Your task to perform on an android device: change the clock style Image 0: 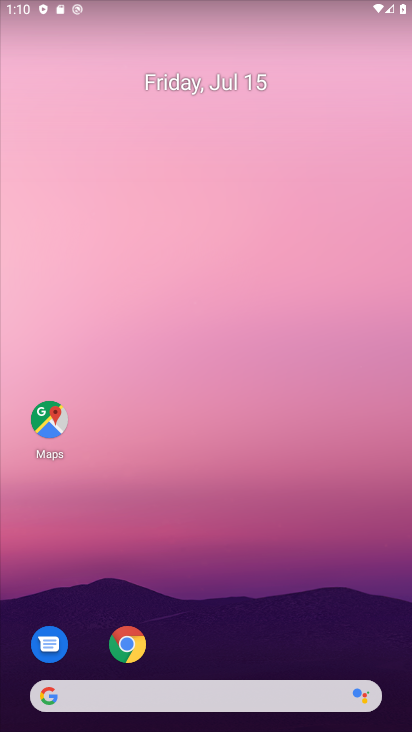
Step 0: drag from (392, 656) to (195, 46)
Your task to perform on an android device: change the clock style Image 1: 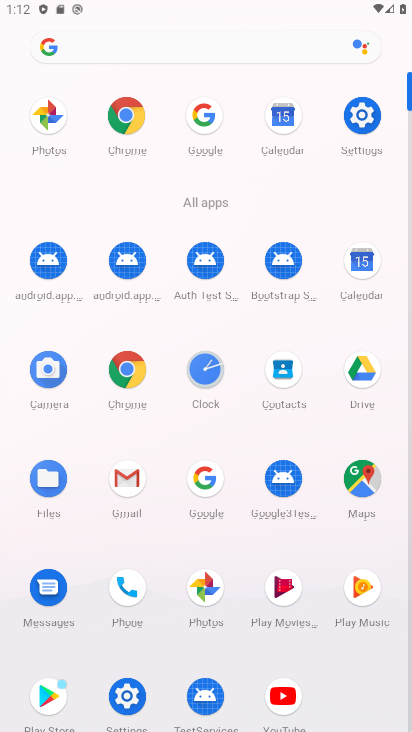
Step 1: click (199, 361)
Your task to perform on an android device: change the clock style Image 2: 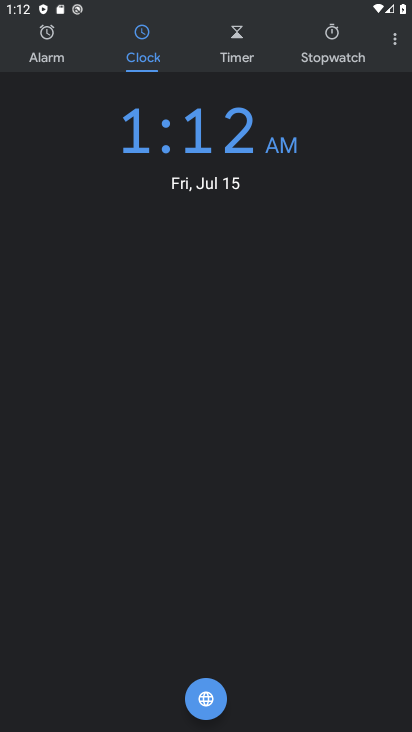
Step 2: click (390, 40)
Your task to perform on an android device: change the clock style Image 3: 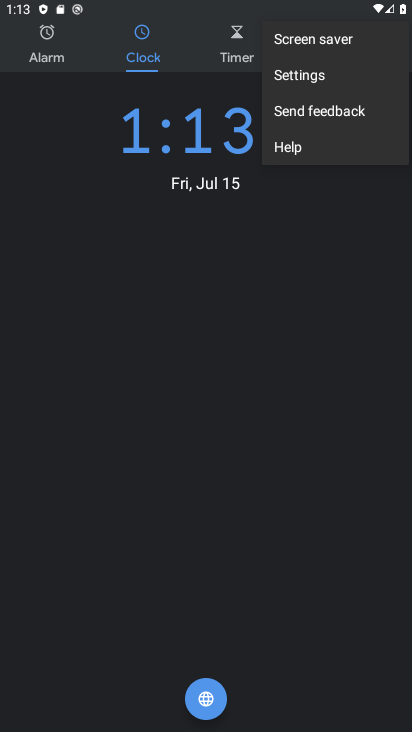
Step 3: click (316, 72)
Your task to perform on an android device: change the clock style Image 4: 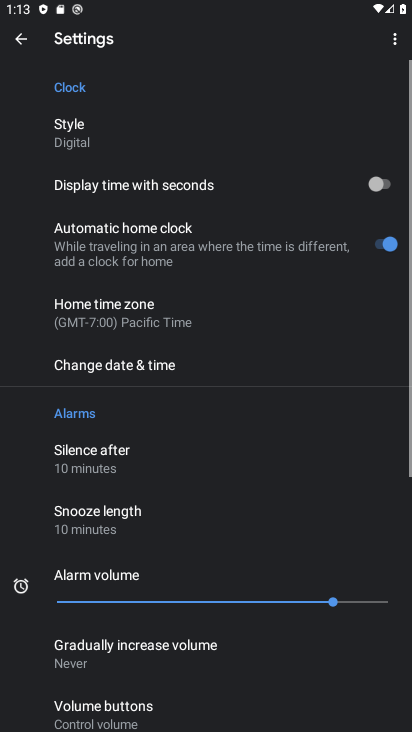
Step 4: click (103, 129)
Your task to perform on an android device: change the clock style Image 5: 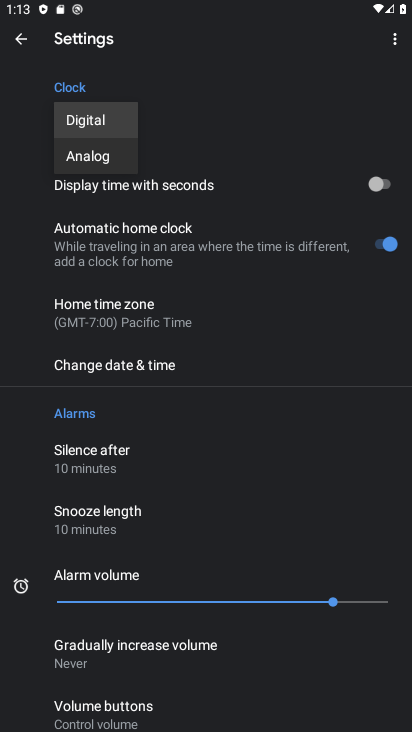
Step 5: click (89, 165)
Your task to perform on an android device: change the clock style Image 6: 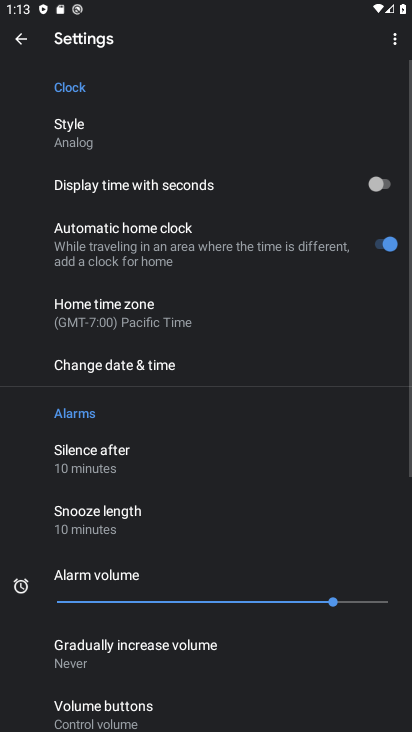
Step 6: task complete